Your task to perform on an android device: change notifications settings Image 0: 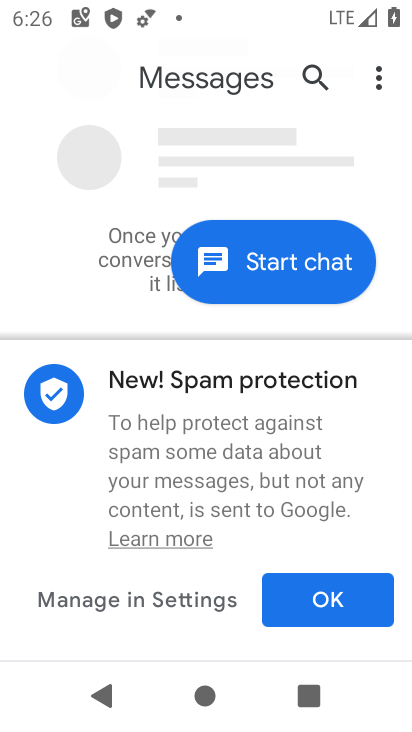
Step 0: press home button
Your task to perform on an android device: change notifications settings Image 1: 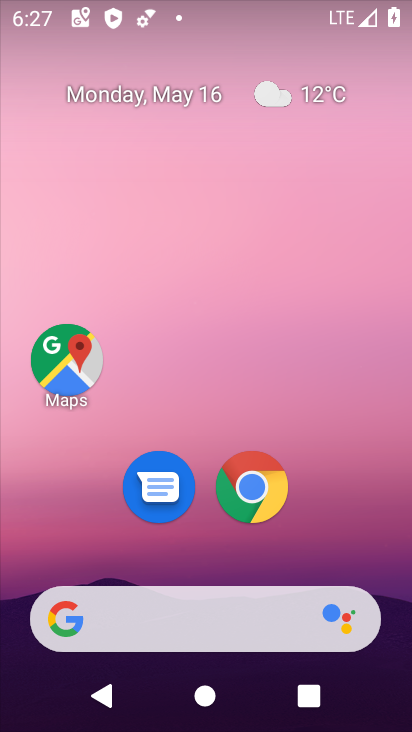
Step 1: drag from (373, 522) to (367, 5)
Your task to perform on an android device: change notifications settings Image 2: 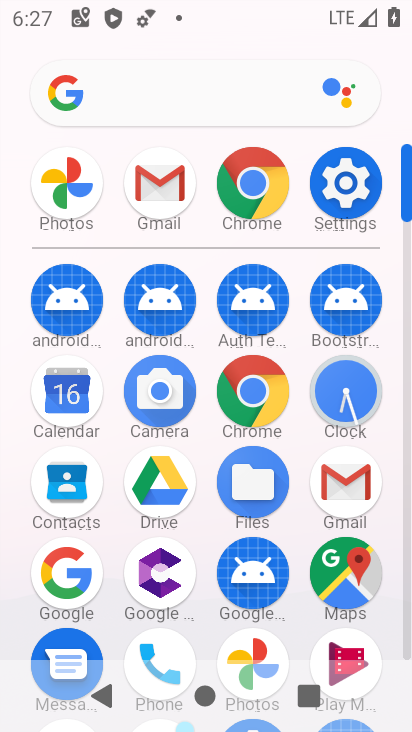
Step 2: click (358, 173)
Your task to perform on an android device: change notifications settings Image 3: 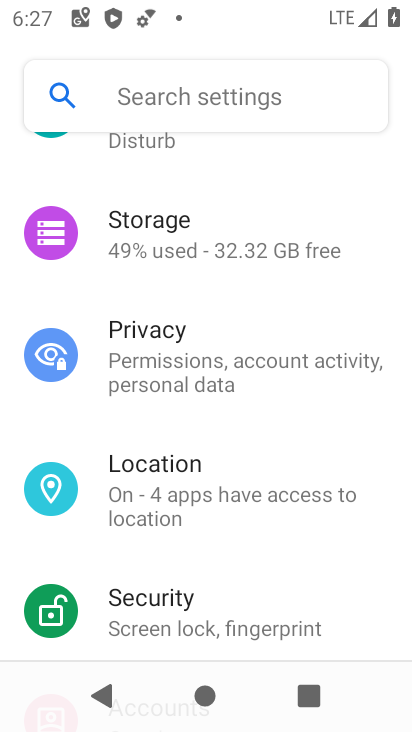
Step 3: drag from (197, 170) to (265, 636)
Your task to perform on an android device: change notifications settings Image 4: 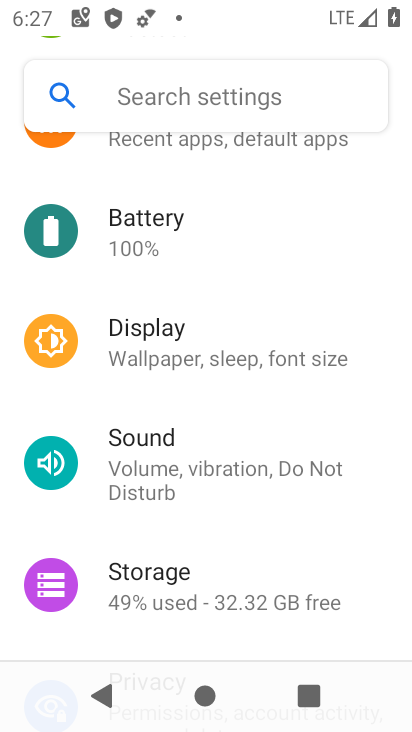
Step 4: drag from (180, 150) to (237, 589)
Your task to perform on an android device: change notifications settings Image 5: 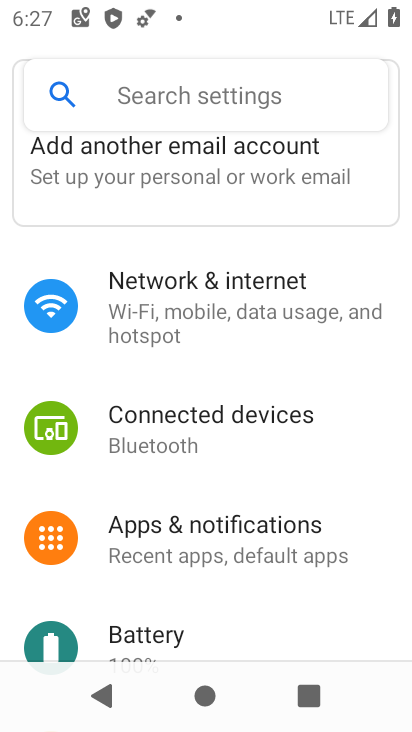
Step 5: click (192, 527)
Your task to perform on an android device: change notifications settings Image 6: 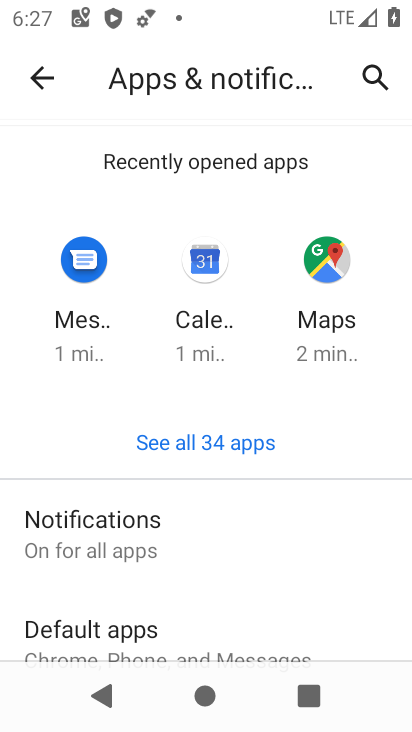
Step 6: click (125, 537)
Your task to perform on an android device: change notifications settings Image 7: 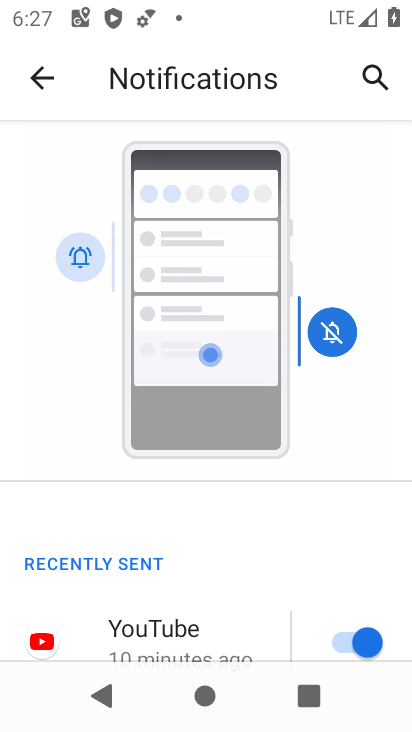
Step 7: drag from (195, 606) to (257, 0)
Your task to perform on an android device: change notifications settings Image 8: 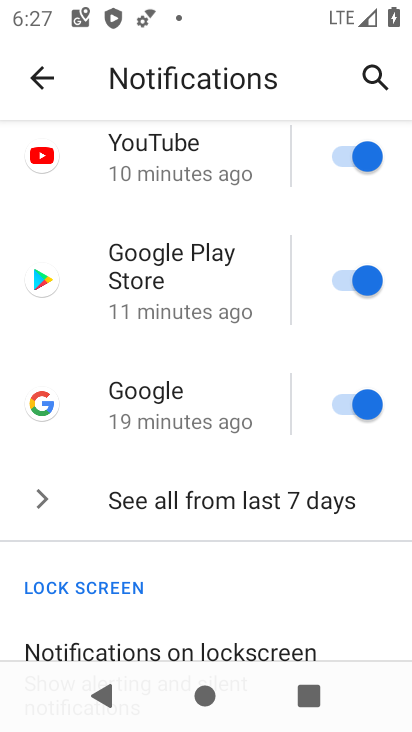
Step 8: drag from (211, 572) to (249, 85)
Your task to perform on an android device: change notifications settings Image 9: 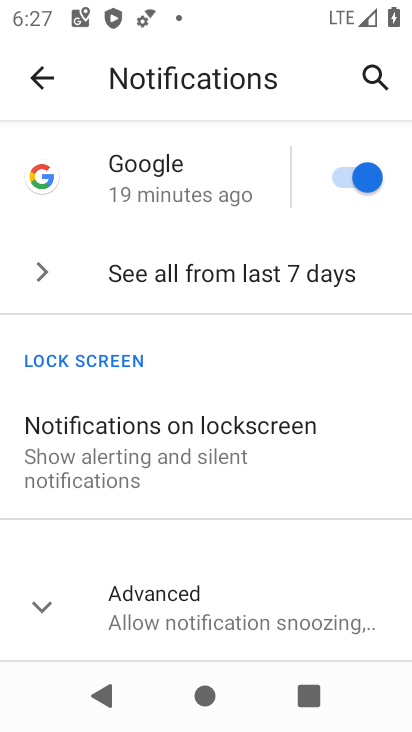
Step 9: click (160, 637)
Your task to perform on an android device: change notifications settings Image 10: 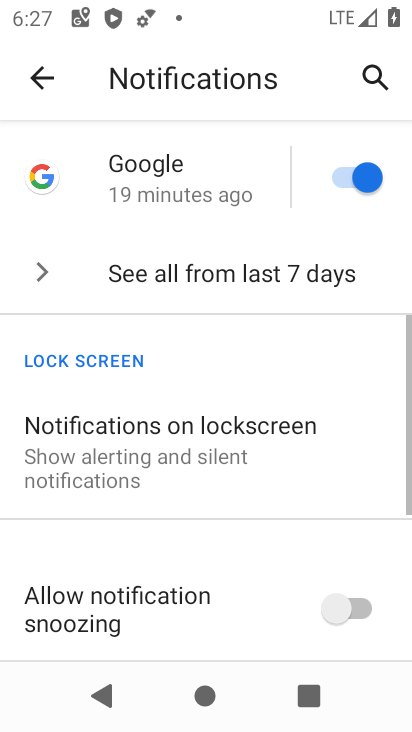
Step 10: drag from (247, 521) to (244, 268)
Your task to perform on an android device: change notifications settings Image 11: 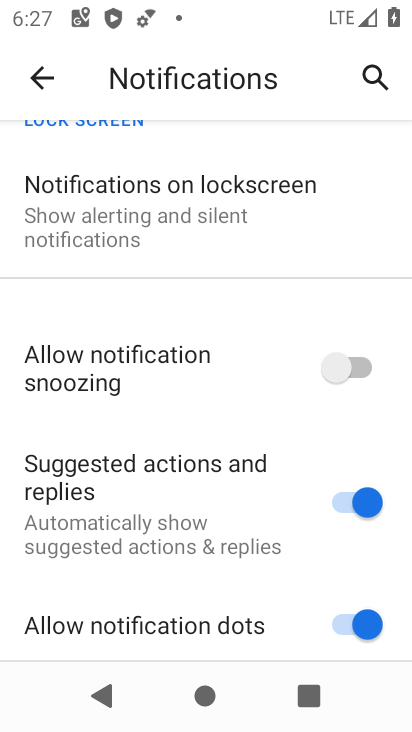
Step 11: click (328, 360)
Your task to perform on an android device: change notifications settings Image 12: 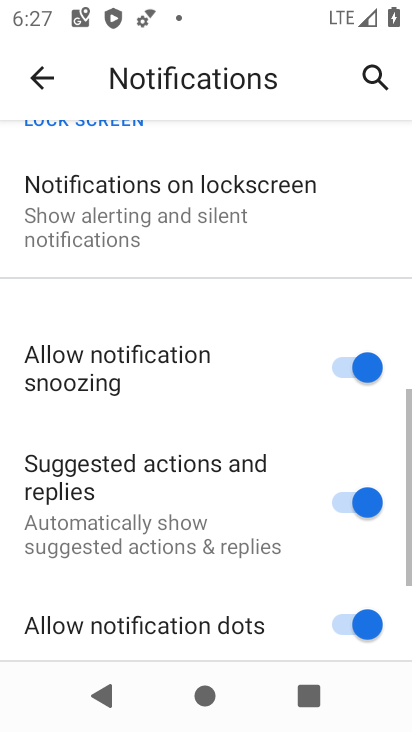
Step 12: task complete